Your task to perform on an android device: Open Chrome and go to settings Image 0: 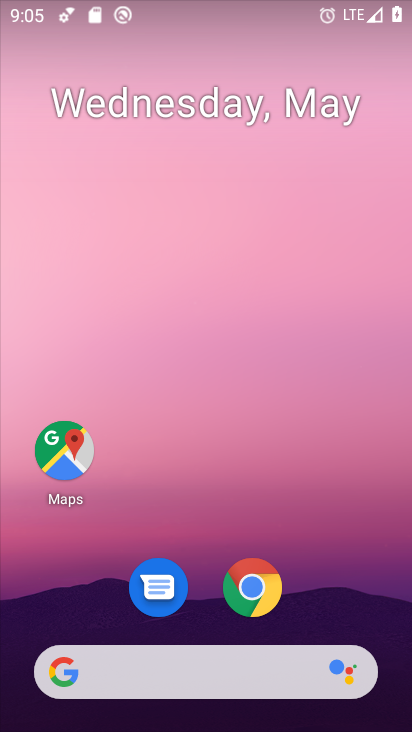
Step 0: click (247, 596)
Your task to perform on an android device: Open Chrome and go to settings Image 1: 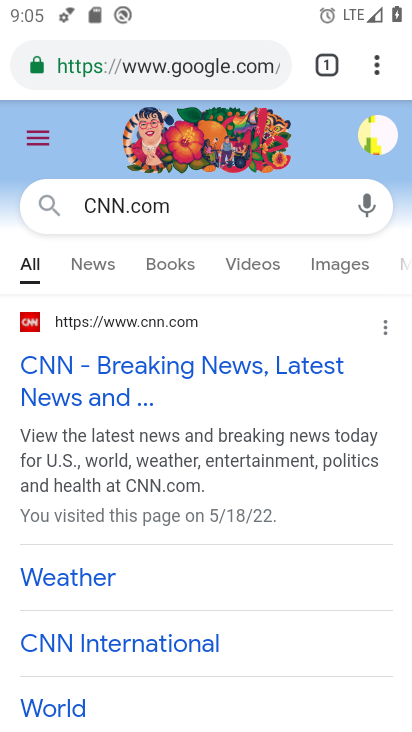
Step 1: click (382, 61)
Your task to perform on an android device: Open Chrome and go to settings Image 2: 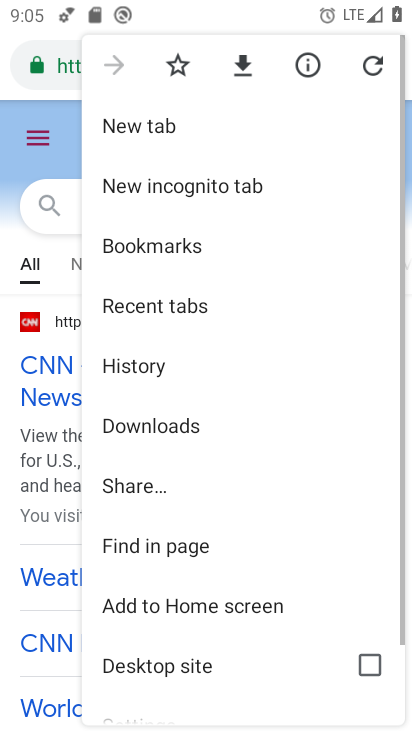
Step 2: drag from (174, 558) to (215, 144)
Your task to perform on an android device: Open Chrome and go to settings Image 3: 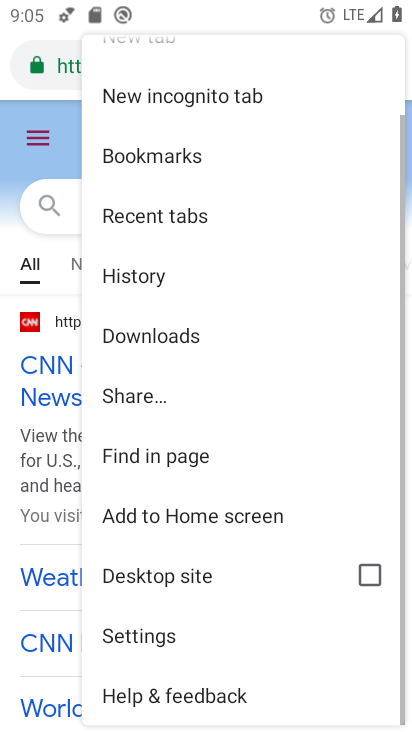
Step 3: click (126, 638)
Your task to perform on an android device: Open Chrome and go to settings Image 4: 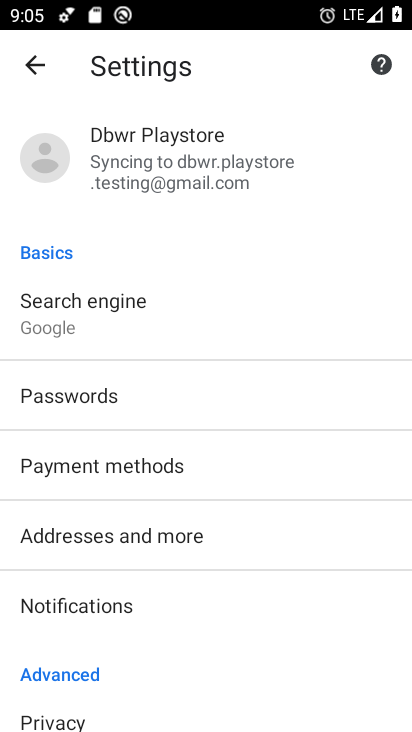
Step 4: task complete